Your task to perform on an android device: clear history in the chrome app Image 0: 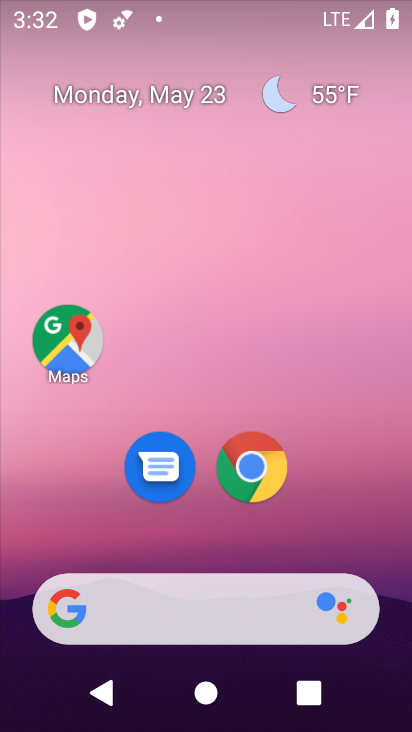
Step 0: click (251, 473)
Your task to perform on an android device: clear history in the chrome app Image 1: 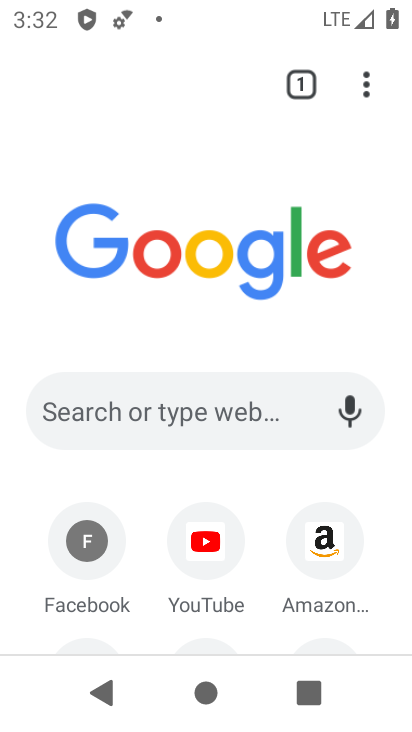
Step 1: click (366, 80)
Your task to perform on an android device: clear history in the chrome app Image 2: 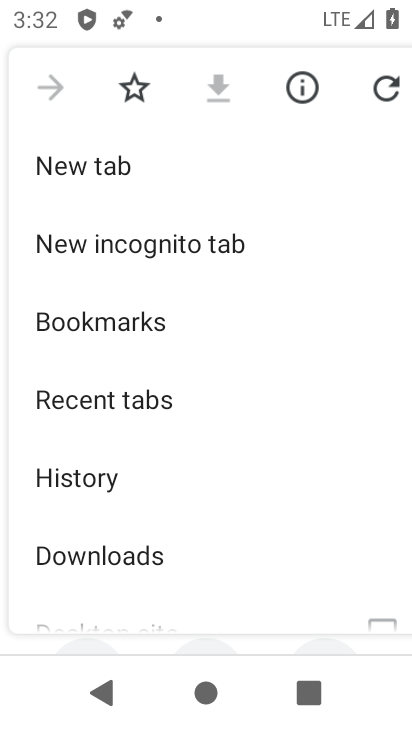
Step 2: click (103, 466)
Your task to perform on an android device: clear history in the chrome app Image 3: 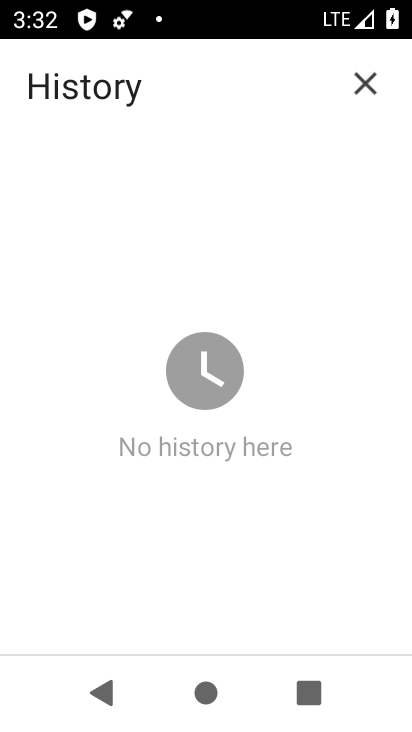
Step 3: task complete